Your task to perform on an android device: star an email in the gmail app Image 0: 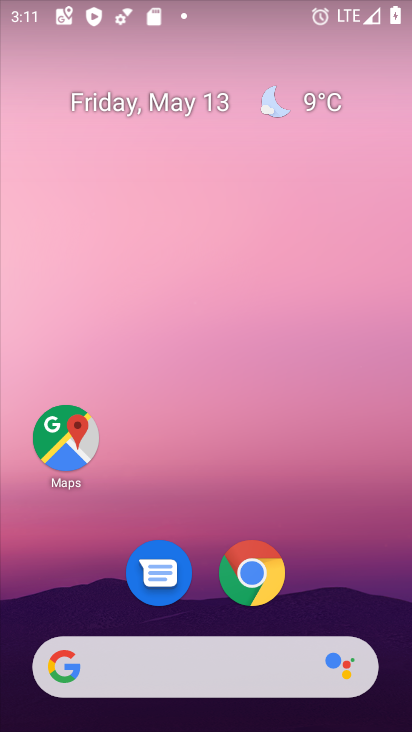
Step 0: drag from (350, 599) to (285, 97)
Your task to perform on an android device: star an email in the gmail app Image 1: 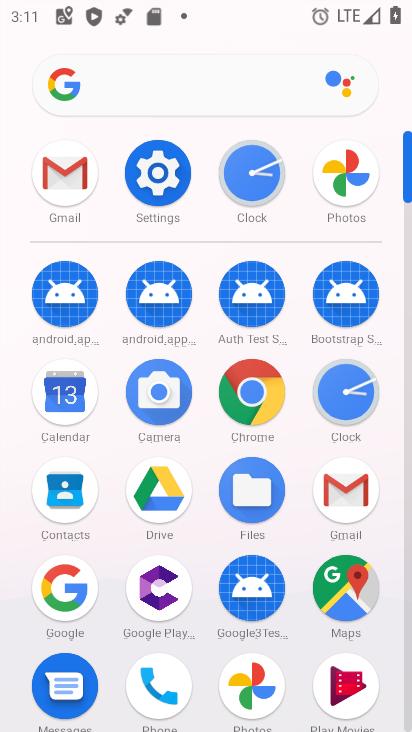
Step 1: click (65, 174)
Your task to perform on an android device: star an email in the gmail app Image 2: 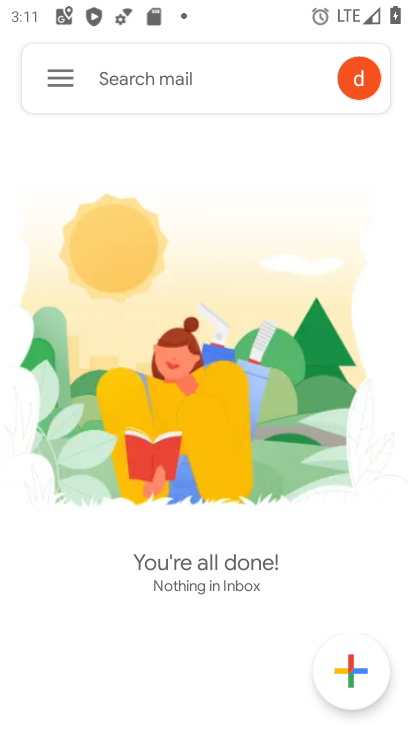
Step 2: click (64, 79)
Your task to perform on an android device: star an email in the gmail app Image 3: 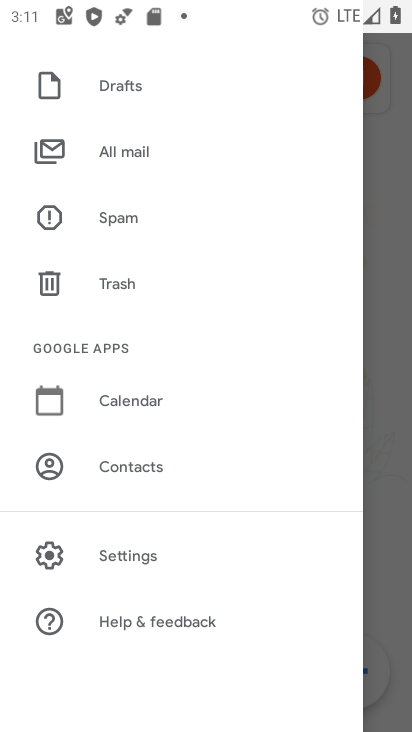
Step 3: click (147, 155)
Your task to perform on an android device: star an email in the gmail app Image 4: 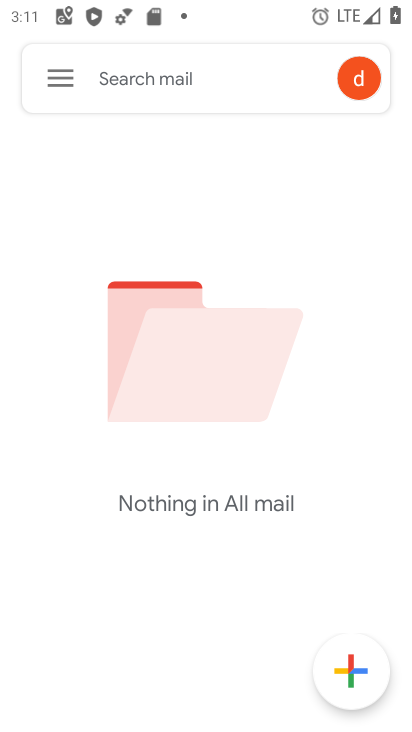
Step 4: click (51, 72)
Your task to perform on an android device: star an email in the gmail app Image 5: 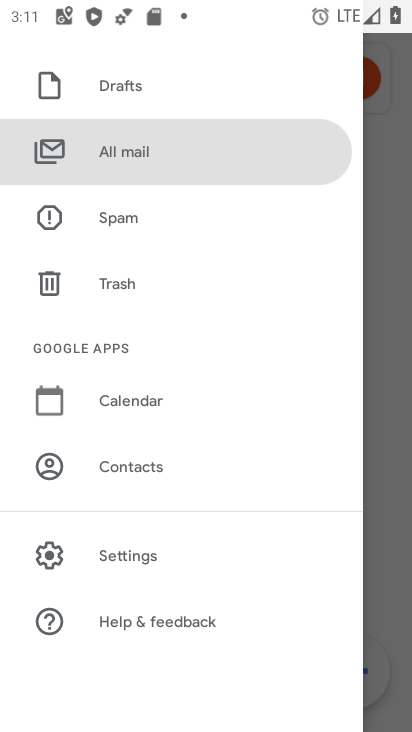
Step 5: drag from (189, 316) to (201, 438)
Your task to perform on an android device: star an email in the gmail app Image 6: 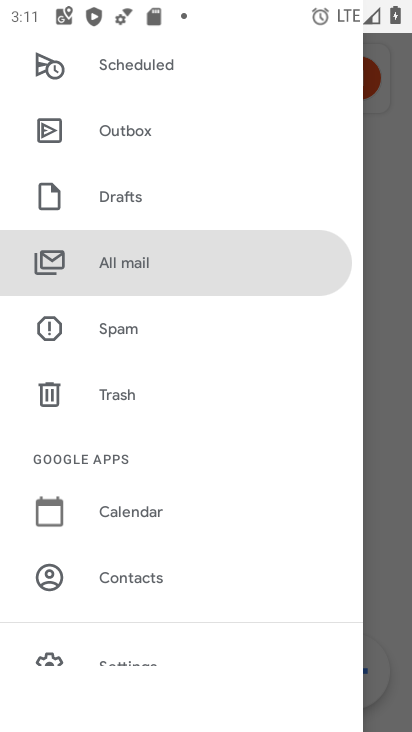
Step 6: drag from (211, 195) to (234, 356)
Your task to perform on an android device: star an email in the gmail app Image 7: 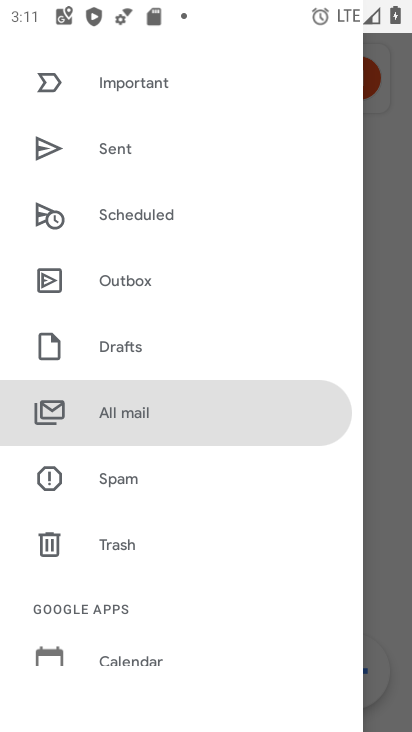
Step 7: drag from (239, 149) to (222, 377)
Your task to perform on an android device: star an email in the gmail app Image 8: 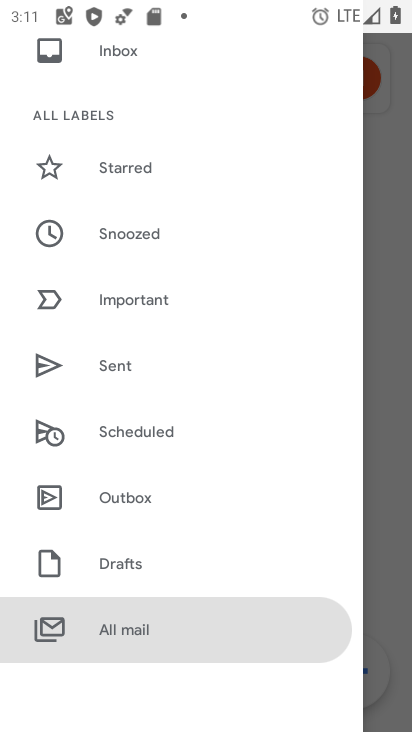
Step 8: drag from (192, 137) to (209, 326)
Your task to perform on an android device: star an email in the gmail app Image 9: 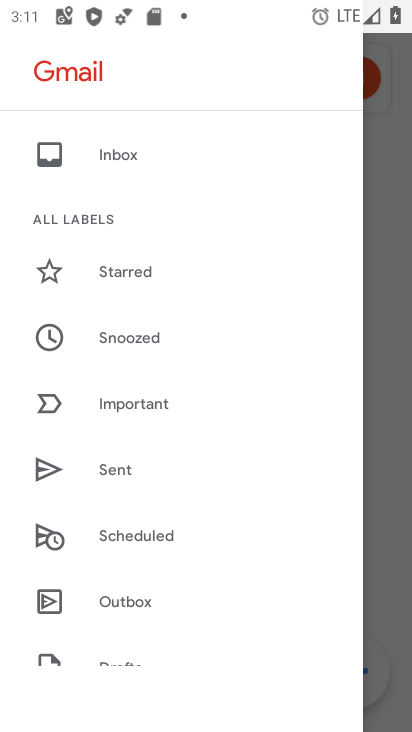
Step 9: click (110, 158)
Your task to perform on an android device: star an email in the gmail app Image 10: 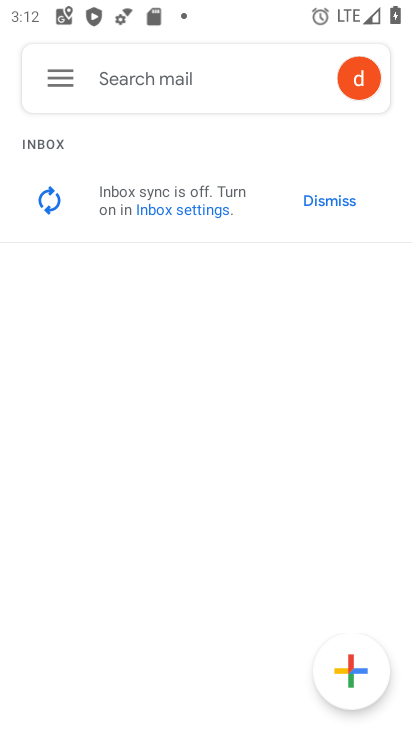
Step 10: task complete